Your task to perform on an android device: turn pop-ups off in chrome Image 0: 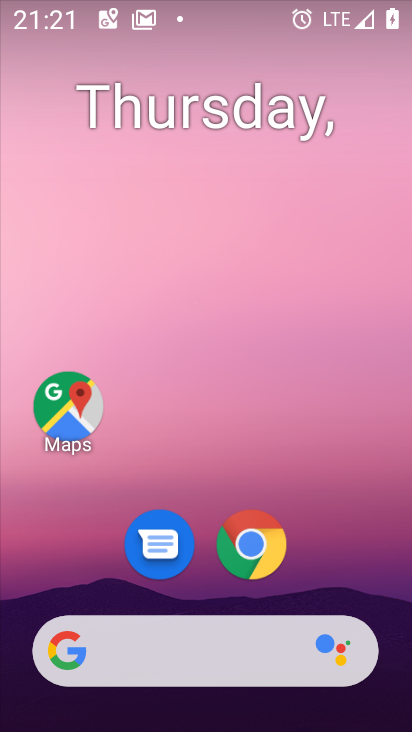
Step 0: click (253, 546)
Your task to perform on an android device: turn pop-ups off in chrome Image 1: 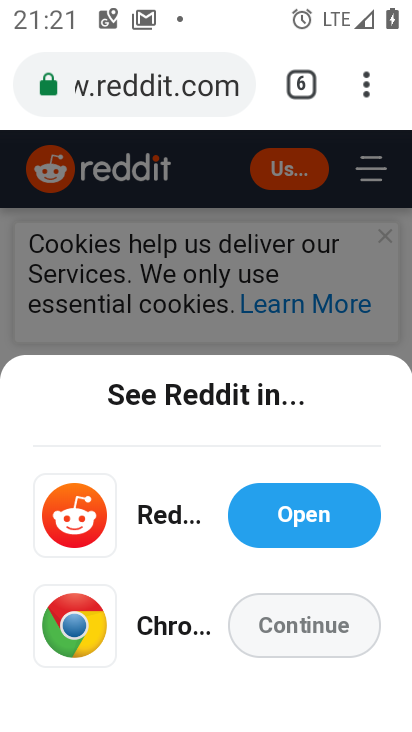
Step 1: click (357, 78)
Your task to perform on an android device: turn pop-ups off in chrome Image 2: 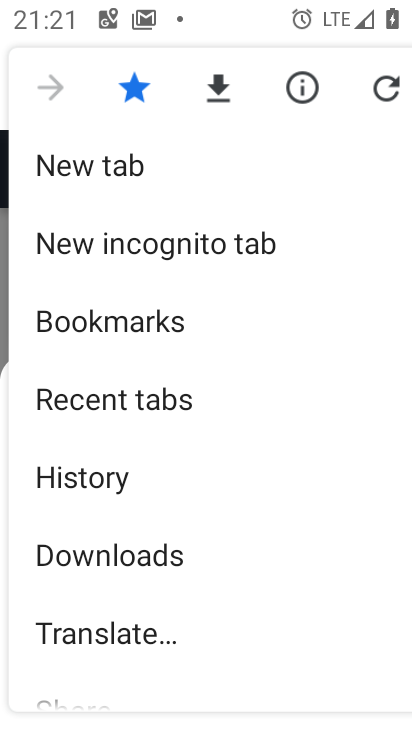
Step 2: drag from (97, 649) to (286, 102)
Your task to perform on an android device: turn pop-ups off in chrome Image 3: 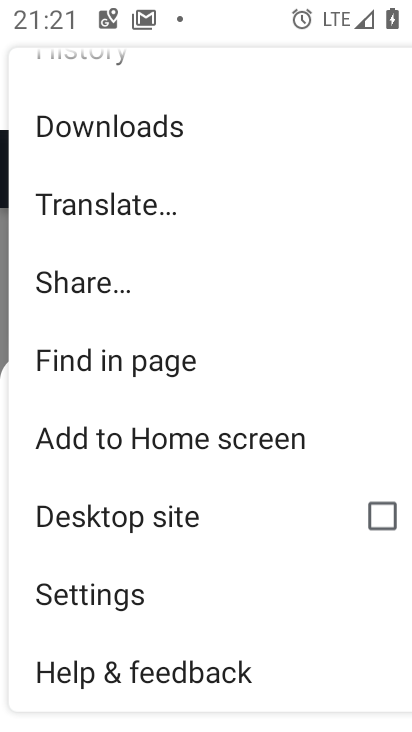
Step 3: click (167, 579)
Your task to perform on an android device: turn pop-ups off in chrome Image 4: 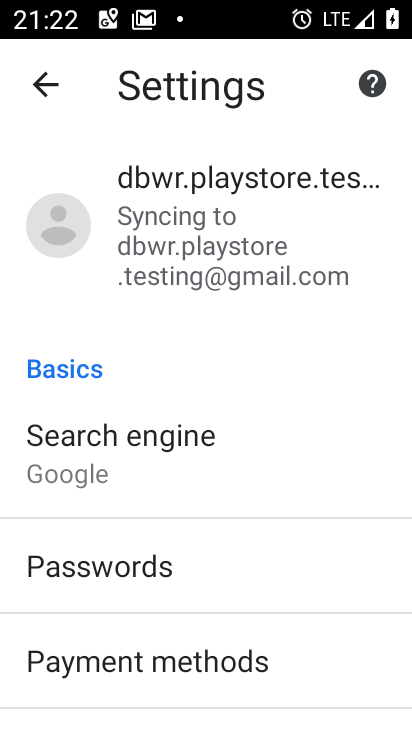
Step 4: click (268, 68)
Your task to perform on an android device: turn pop-ups off in chrome Image 5: 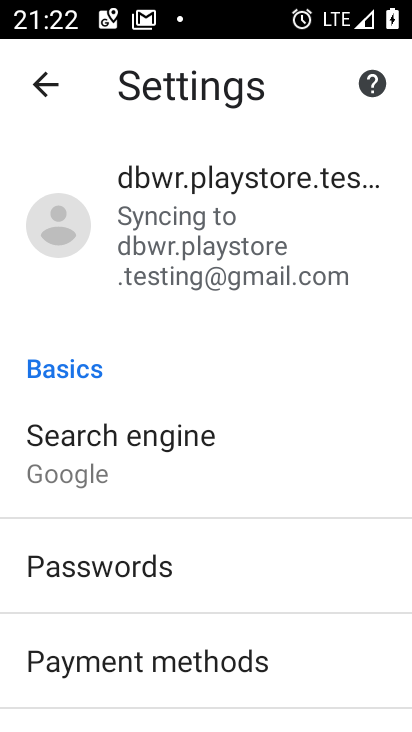
Step 5: drag from (179, 614) to (274, 137)
Your task to perform on an android device: turn pop-ups off in chrome Image 6: 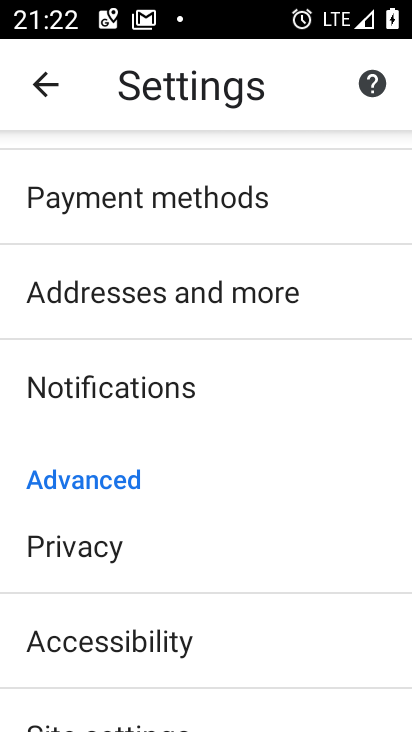
Step 6: drag from (28, 647) to (221, 184)
Your task to perform on an android device: turn pop-ups off in chrome Image 7: 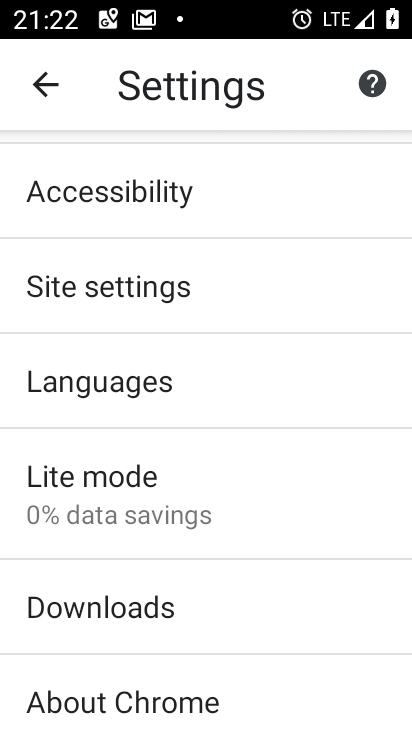
Step 7: click (170, 280)
Your task to perform on an android device: turn pop-ups off in chrome Image 8: 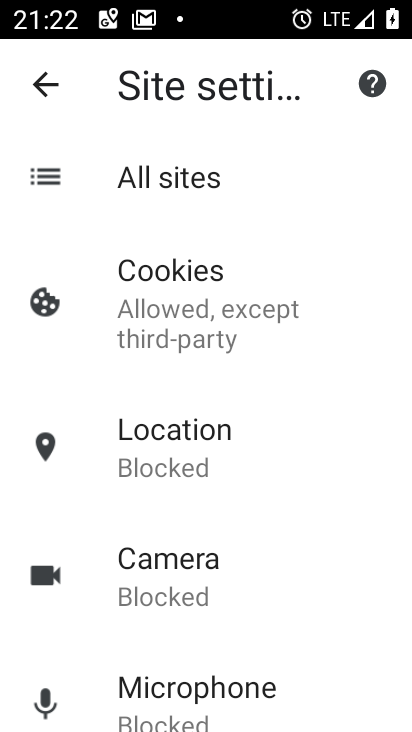
Step 8: drag from (160, 634) to (207, 177)
Your task to perform on an android device: turn pop-ups off in chrome Image 9: 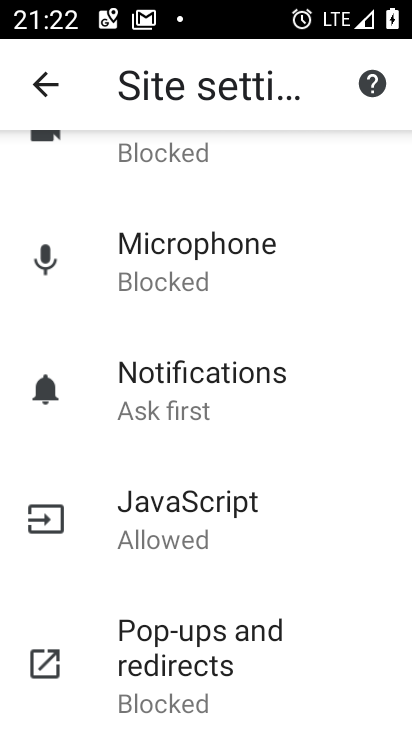
Step 9: click (190, 640)
Your task to perform on an android device: turn pop-ups off in chrome Image 10: 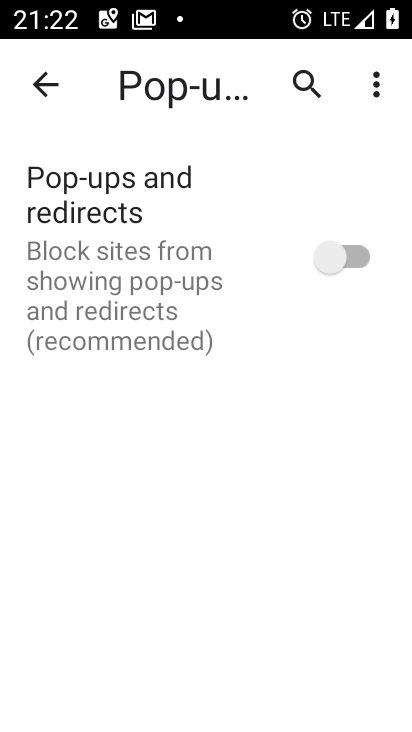
Step 10: task complete